Your task to perform on an android device: allow cookies in the chrome app Image 0: 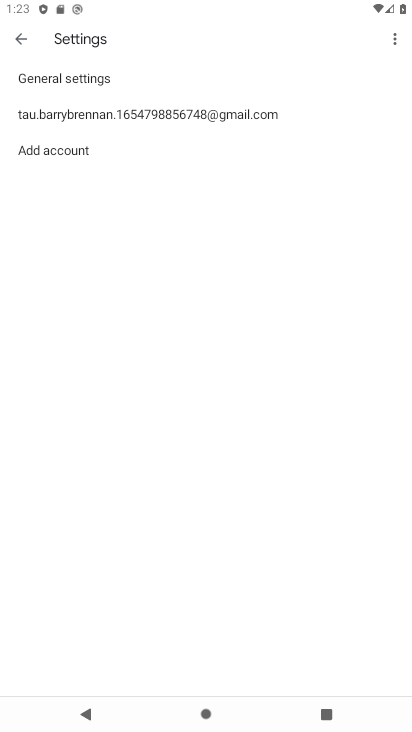
Step 0: press home button
Your task to perform on an android device: allow cookies in the chrome app Image 1: 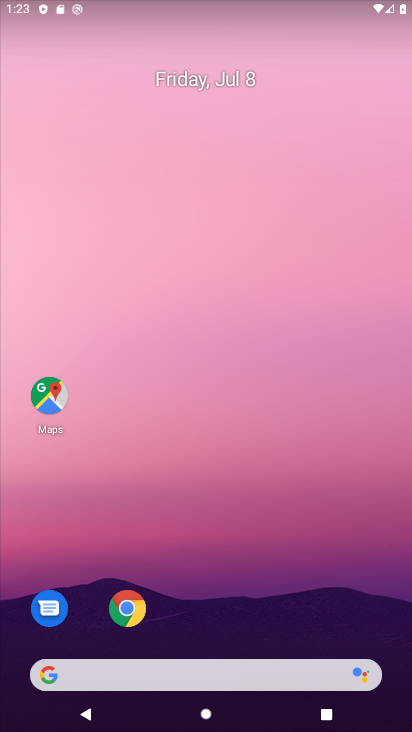
Step 1: click (132, 598)
Your task to perform on an android device: allow cookies in the chrome app Image 2: 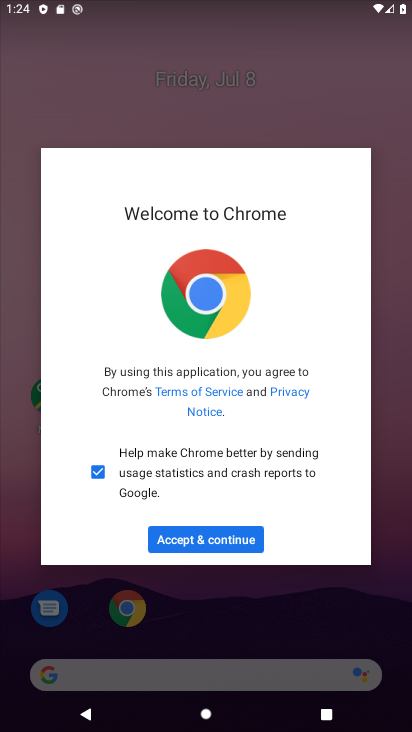
Step 2: click (175, 548)
Your task to perform on an android device: allow cookies in the chrome app Image 3: 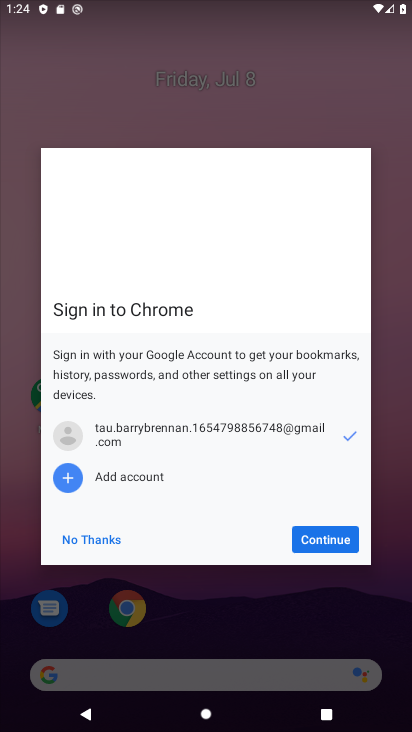
Step 3: click (336, 541)
Your task to perform on an android device: allow cookies in the chrome app Image 4: 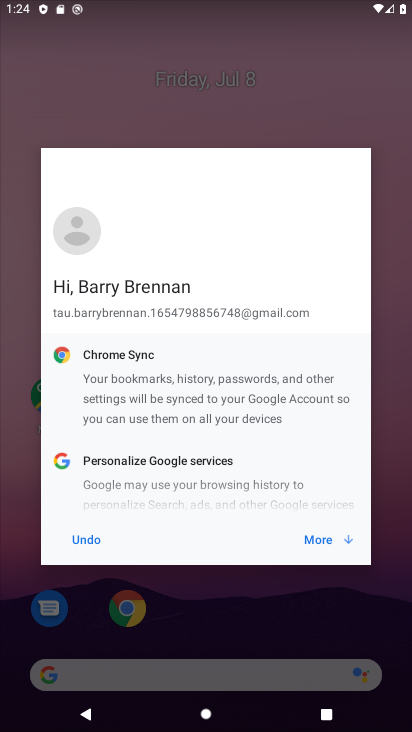
Step 4: click (336, 541)
Your task to perform on an android device: allow cookies in the chrome app Image 5: 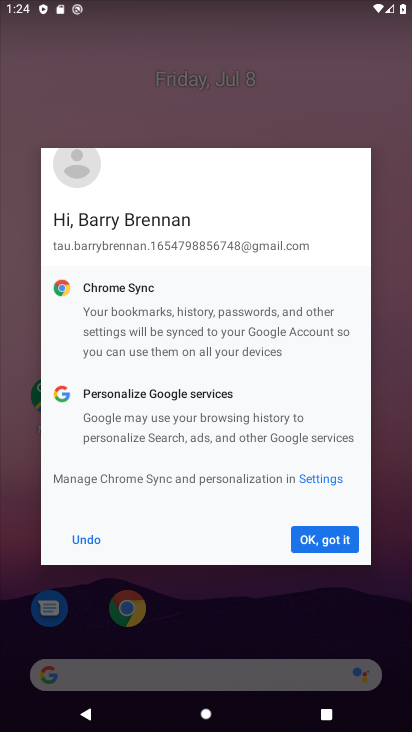
Step 5: click (336, 541)
Your task to perform on an android device: allow cookies in the chrome app Image 6: 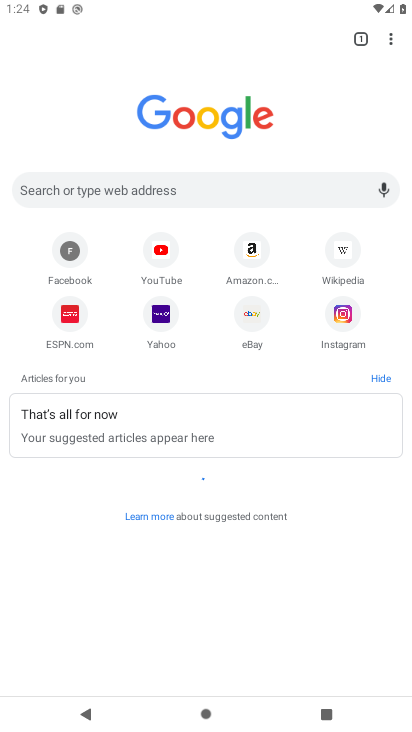
Step 6: click (389, 38)
Your task to perform on an android device: allow cookies in the chrome app Image 7: 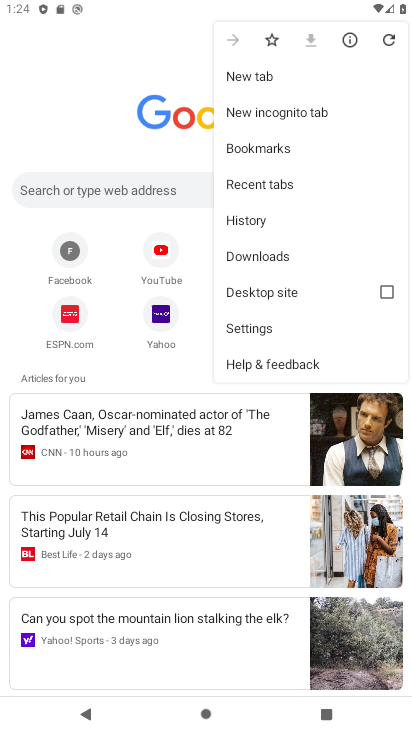
Step 7: click (249, 332)
Your task to perform on an android device: allow cookies in the chrome app Image 8: 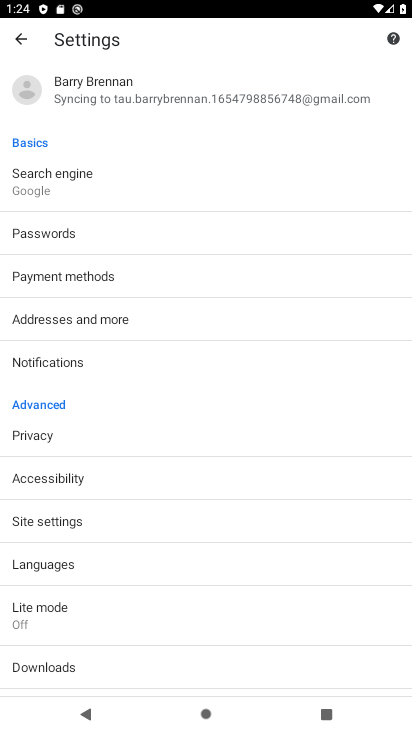
Step 8: click (75, 512)
Your task to perform on an android device: allow cookies in the chrome app Image 9: 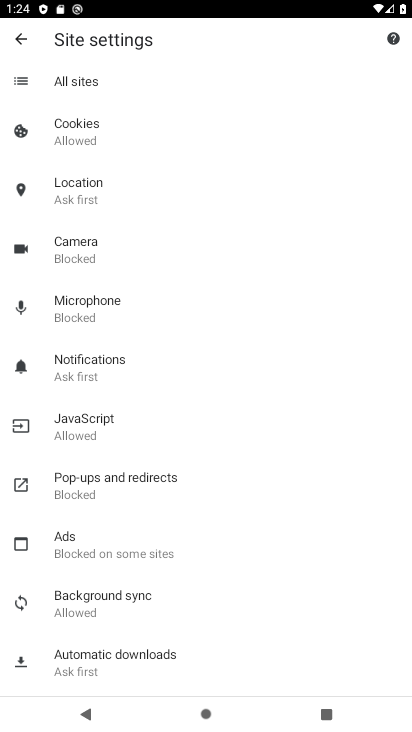
Step 9: click (150, 123)
Your task to perform on an android device: allow cookies in the chrome app Image 10: 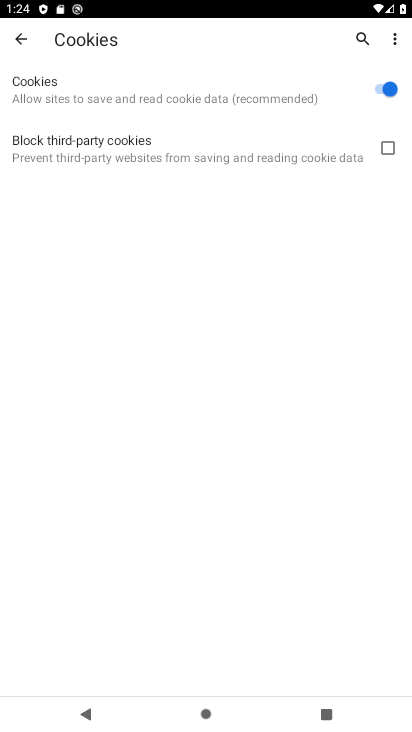
Step 10: task complete